Your task to perform on an android device: open chrome and create a bookmark for the current page Image 0: 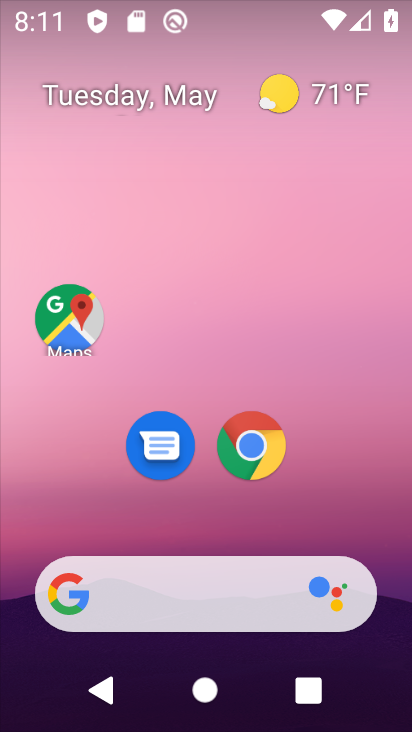
Step 0: click (243, 452)
Your task to perform on an android device: open chrome and create a bookmark for the current page Image 1: 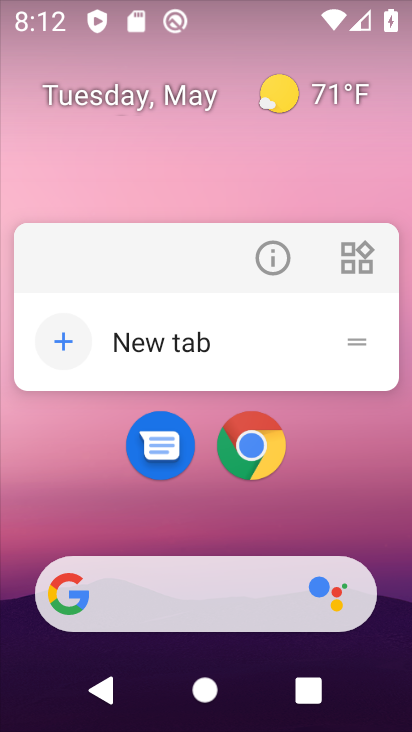
Step 1: click (243, 452)
Your task to perform on an android device: open chrome and create a bookmark for the current page Image 2: 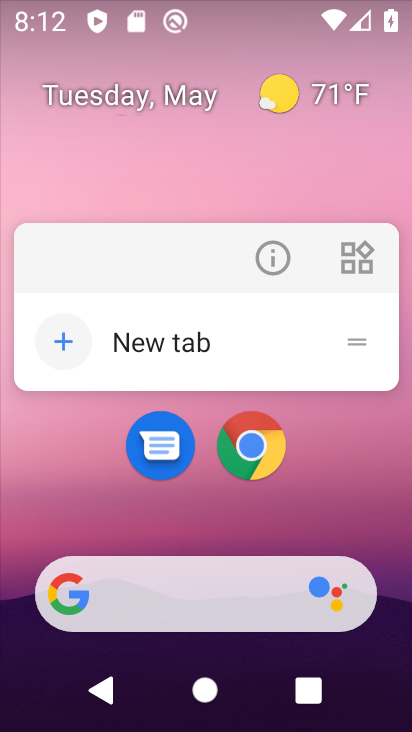
Step 2: click (268, 450)
Your task to perform on an android device: open chrome and create a bookmark for the current page Image 3: 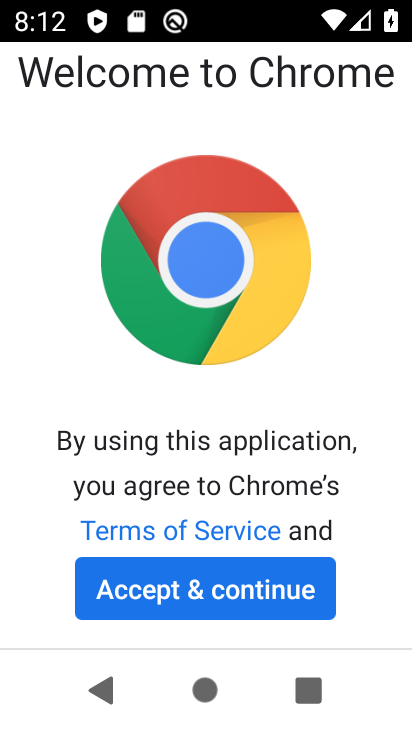
Step 3: click (280, 576)
Your task to perform on an android device: open chrome and create a bookmark for the current page Image 4: 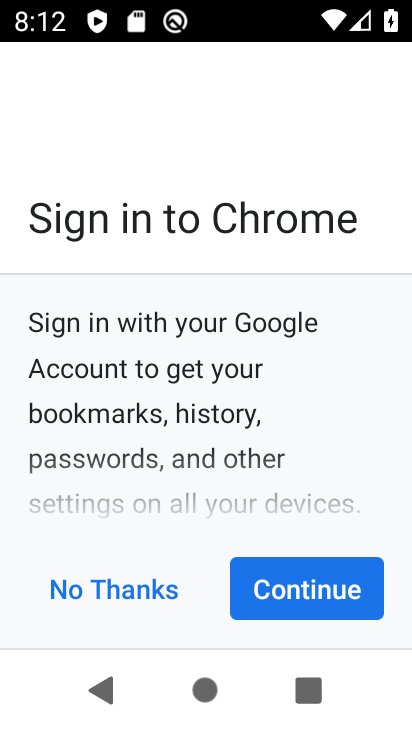
Step 4: click (280, 576)
Your task to perform on an android device: open chrome and create a bookmark for the current page Image 5: 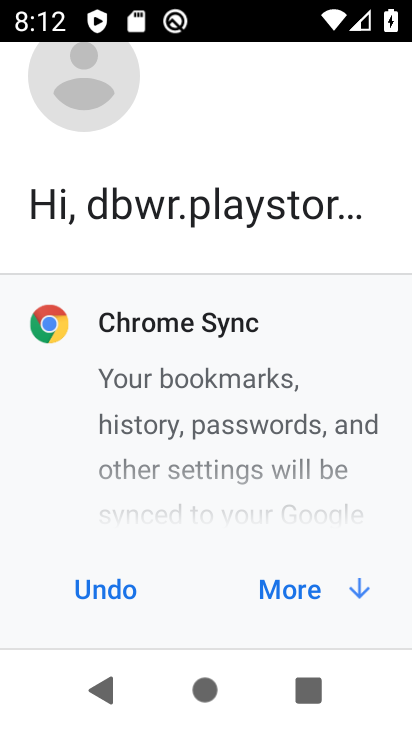
Step 5: click (265, 577)
Your task to perform on an android device: open chrome and create a bookmark for the current page Image 6: 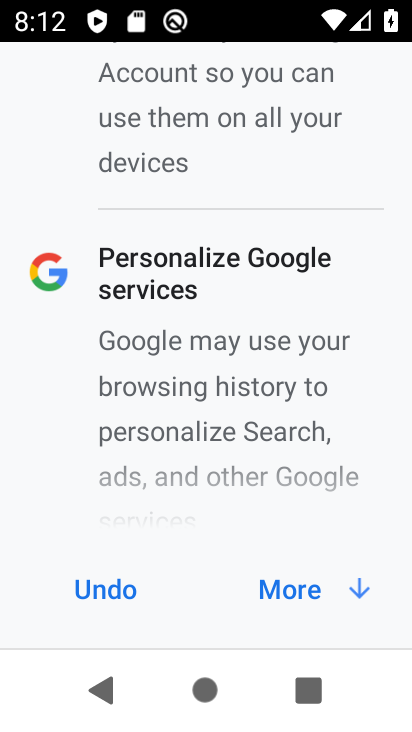
Step 6: click (279, 592)
Your task to perform on an android device: open chrome and create a bookmark for the current page Image 7: 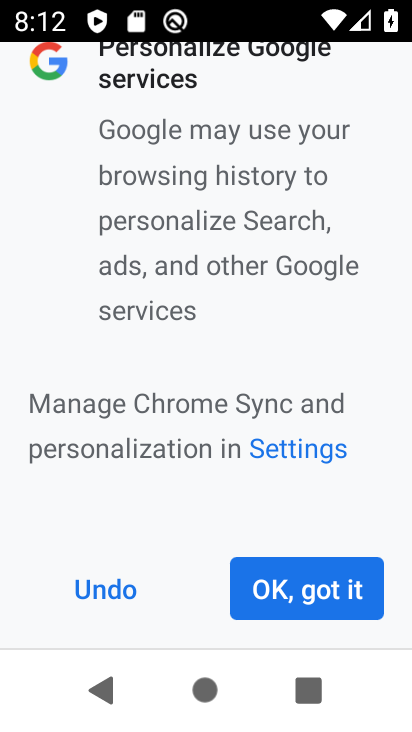
Step 7: click (279, 592)
Your task to perform on an android device: open chrome and create a bookmark for the current page Image 8: 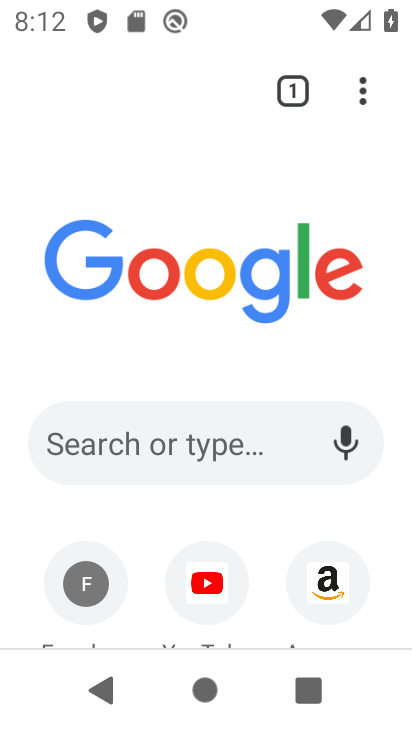
Step 8: click (357, 86)
Your task to perform on an android device: open chrome and create a bookmark for the current page Image 9: 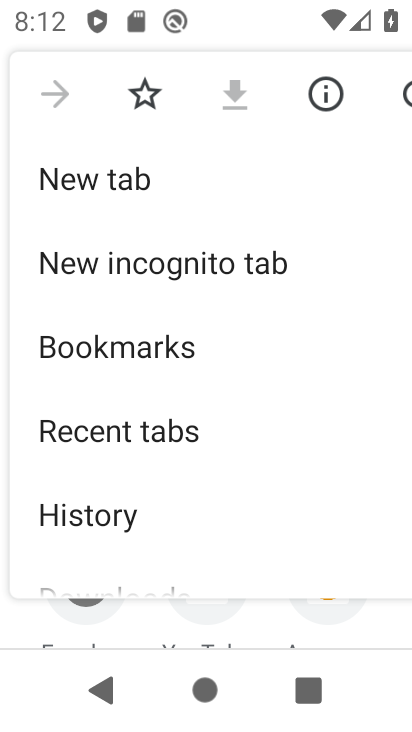
Step 9: click (130, 93)
Your task to perform on an android device: open chrome and create a bookmark for the current page Image 10: 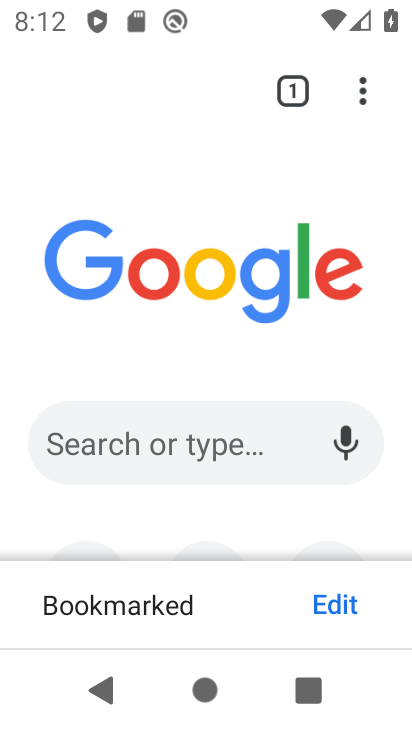
Step 10: task complete